Your task to perform on an android device: Go to ESPN.com Image 0: 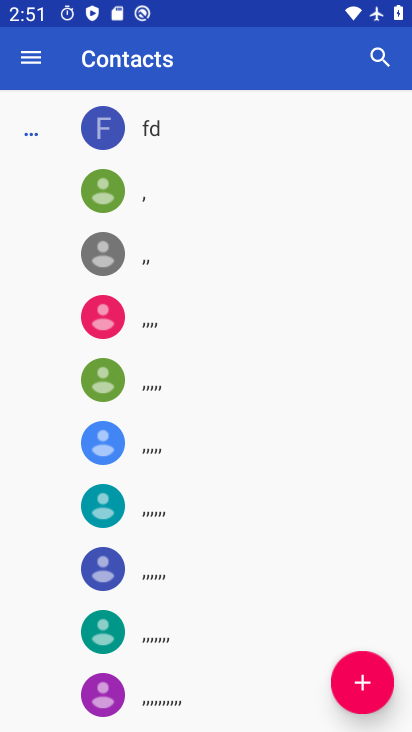
Step 0: press back button
Your task to perform on an android device: Go to ESPN.com Image 1: 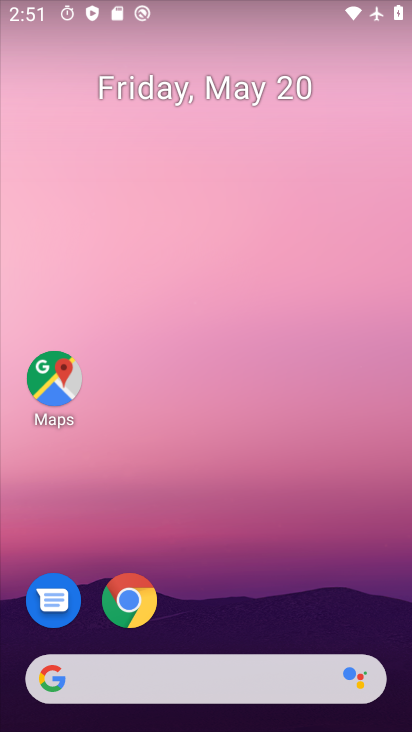
Step 1: drag from (277, 547) to (264, 36)
Your task to perform on an android device: Go to ESPN.com Image 2: 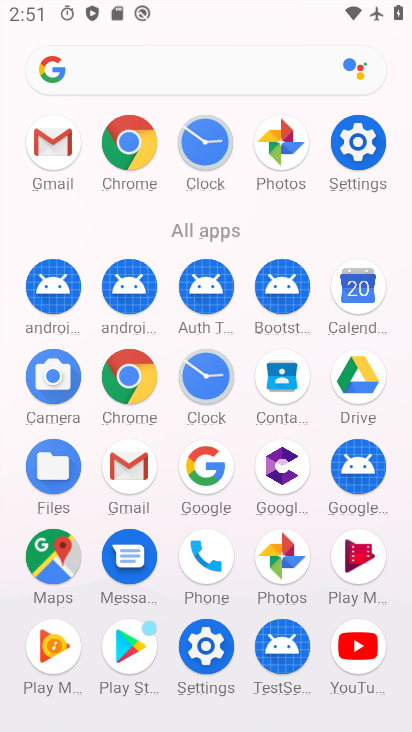
Step 2: click (125, 135)
Your task to perform on an android device: Go to ESPN.com Image 3: 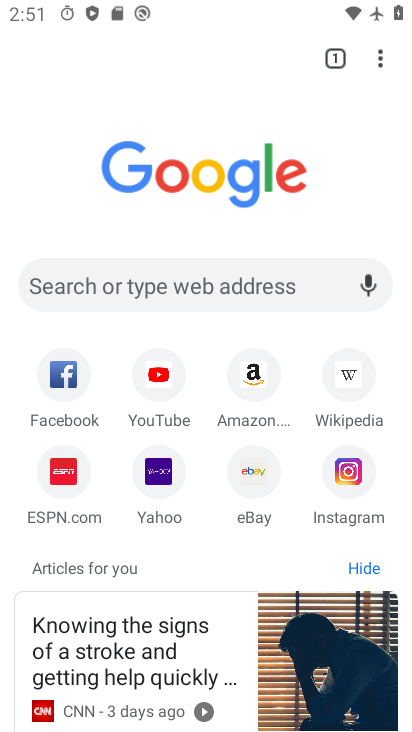
Step 3: click (167, 277)
Your task to perform on an android device: Go to ESPN.com Image 4: 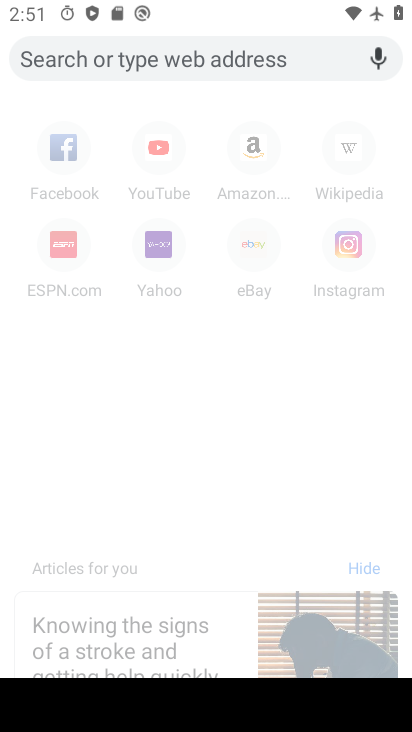
Step 4: type " ESPN.com"
Your task to perform on an android device: Go to ESPN.com Image 5: 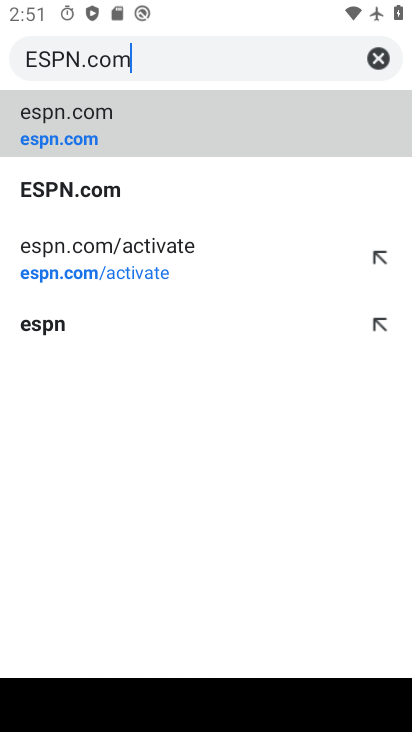
Step 5: type ""
Your task to perform on an android device: Go to ESPN.com Image 6: 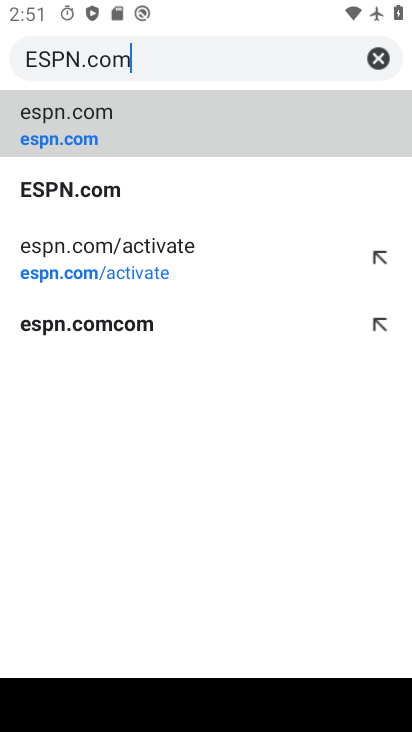
Step 6: click (126, 134)
Your task to perform on an android device: Go to ESPN.com Image 7: 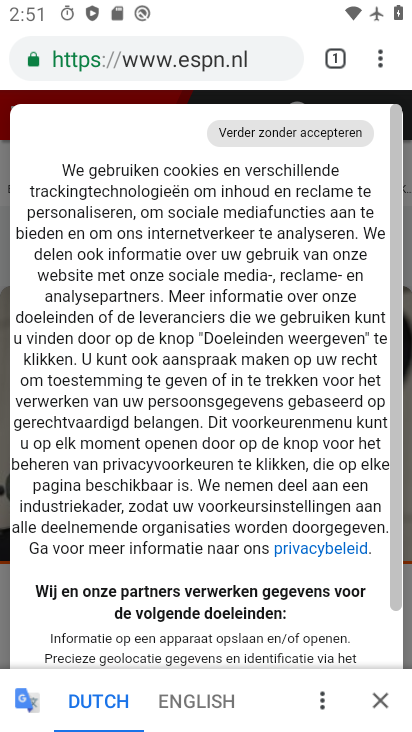
Step 7: drag from (231, 530) to (241, 153)
Your task to perform on an android device: Go to ESPN.com Image 8: 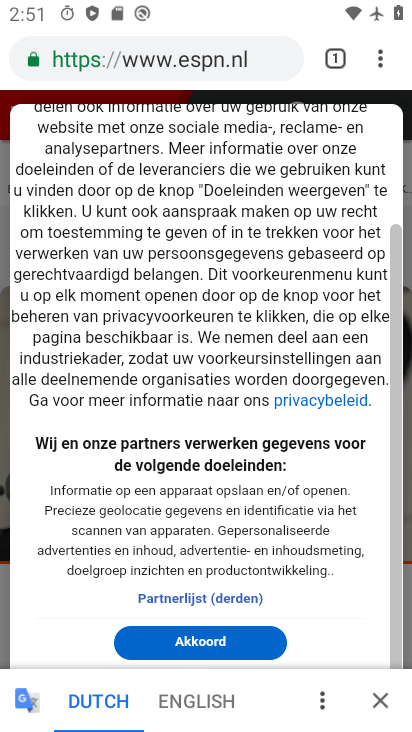
Step 8: click (201, 639)
Your task to perform on an android device: Go to ESPN.com Image 9: 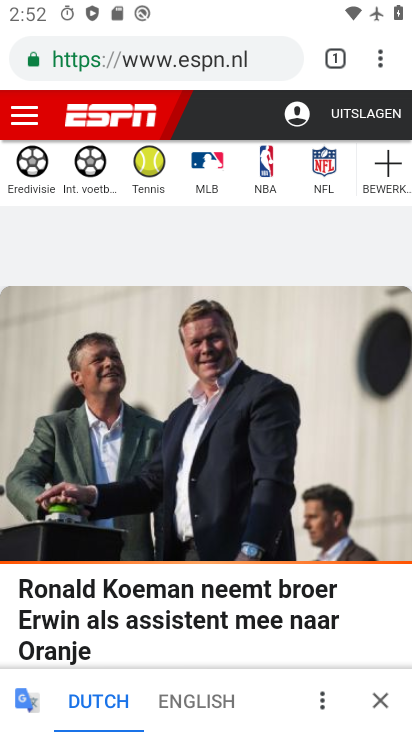
Step 9: task complete